Your task to perform on an android device: Open Yahoo.com Image 0: 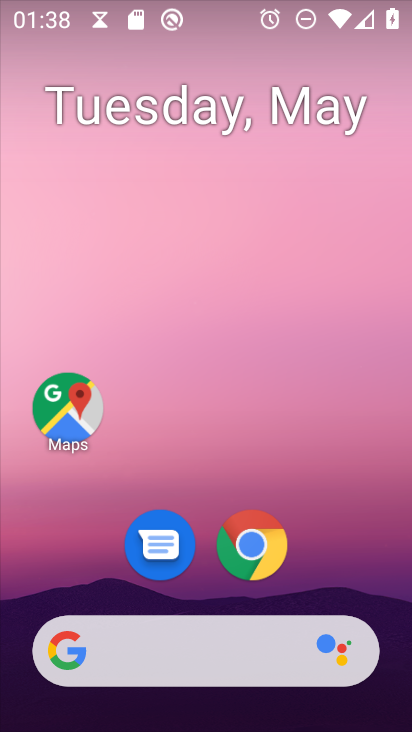
Step 0: click (259, 538)
Your task to perform on an android device: Open Yahoo.com Image 1: 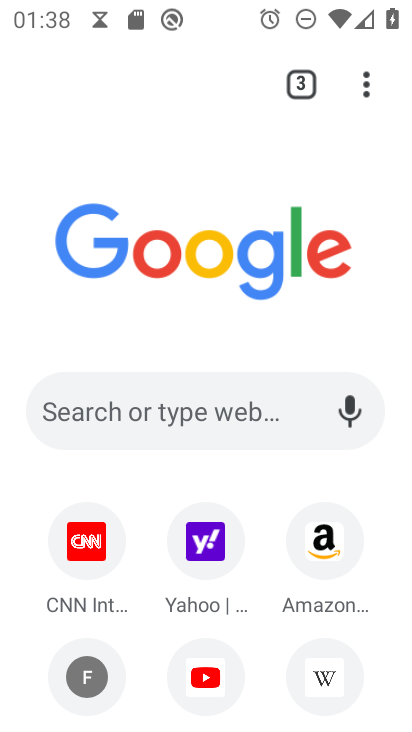
Step 1: click (221, 527)
Your task to perform on an android device: Open Yahoo.com Image 2: 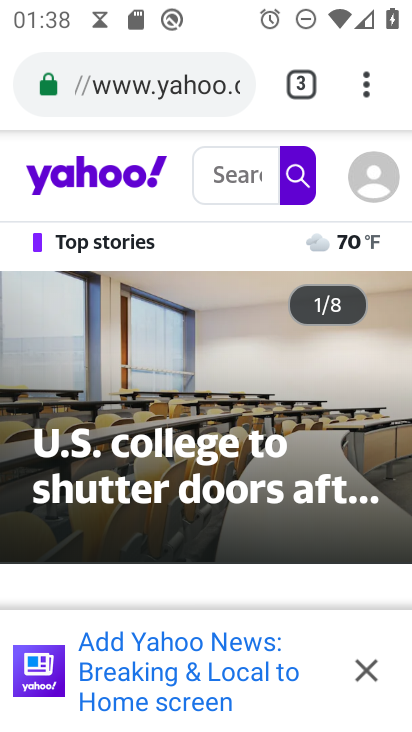
Step 2: task complete